Your task to perform on an android device: Is it going to rain today? Image 0: 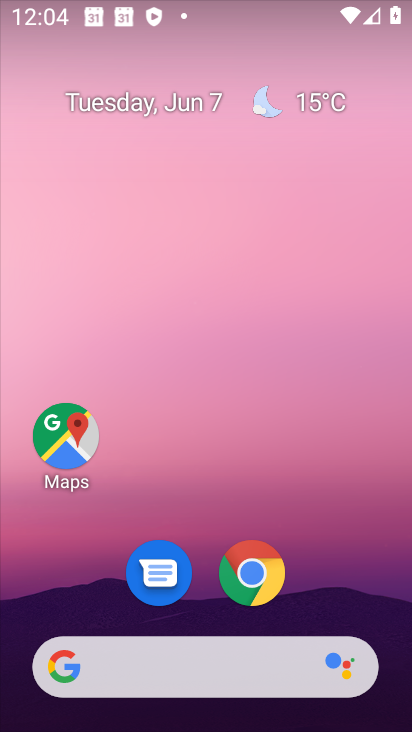
Step 0: press home button
Your task to perform on an android device: Is it going to rain today? Image 1: 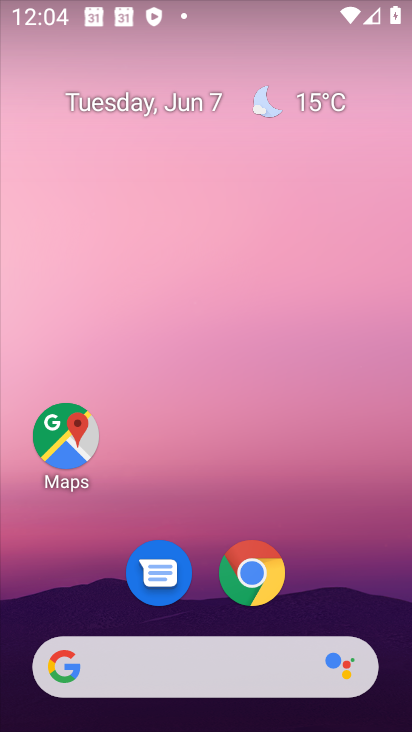
Step 1: click (65, 662)
Your task to perform on an android device: Is it going to rain today? Image 2: 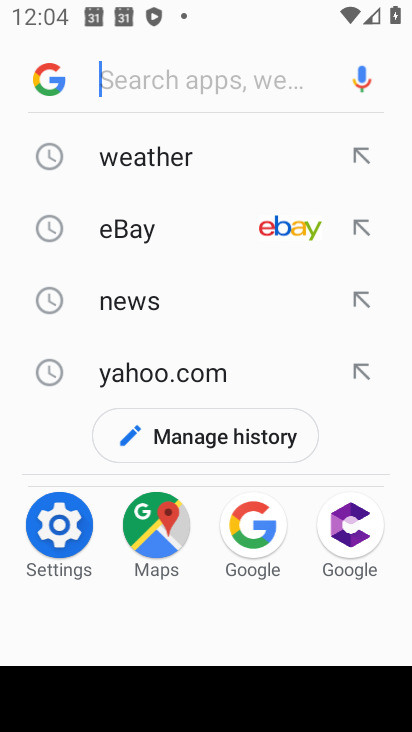
Step 2: type "rain today?"
Your task to perform on an android device: Is it going to rain today? Image 3: 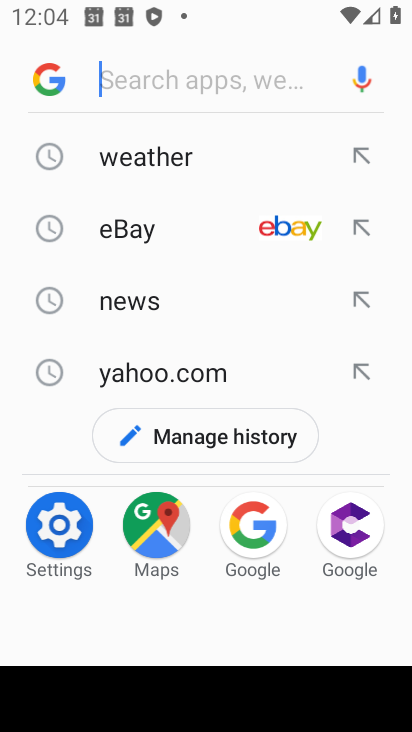
Step 3: click (161, 88)
Your task to perform on an android device: Is it going to rain today? Image 4: 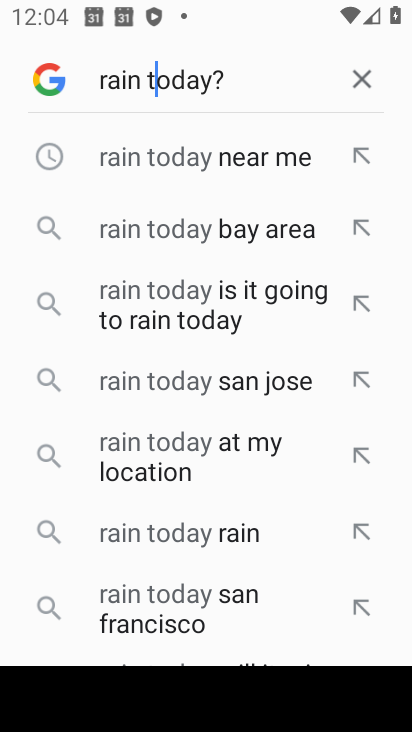
Step 4: click (358, 76)
Your task to perform on an android device: Is it going to rain today? Image 5: 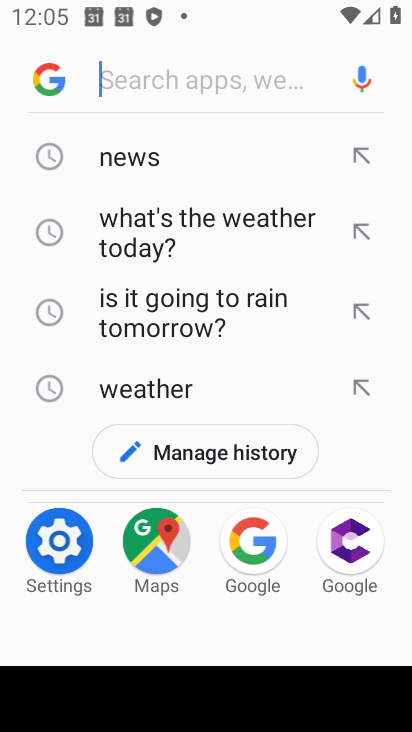
Step 5: type "Is it going to rain today?"
Your task to perform on an android device: Is it going to rain today? Image 6: 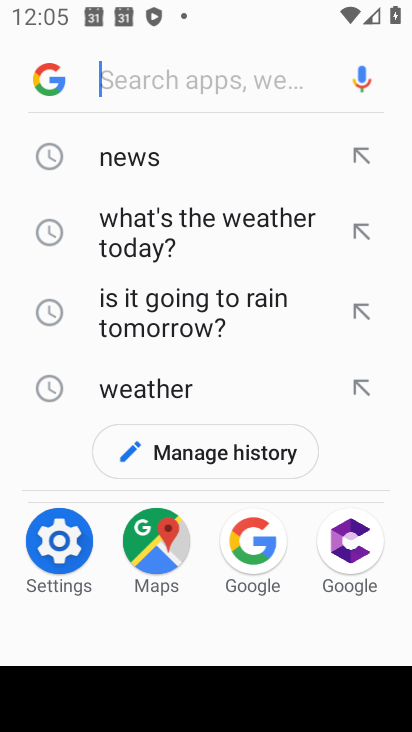
Step 6: click (163, 80)
Your task to perform on an android device: Is it going to rain today? Image 7: 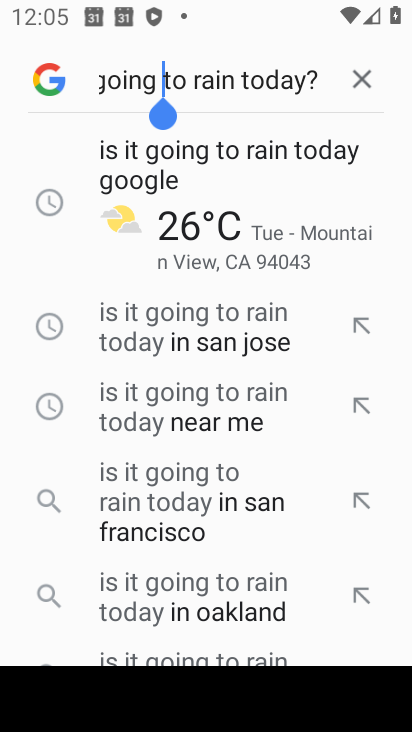
Step 7: click (199, 161)
Your task to perform on an android device: Is it going to rain today? Image 8: 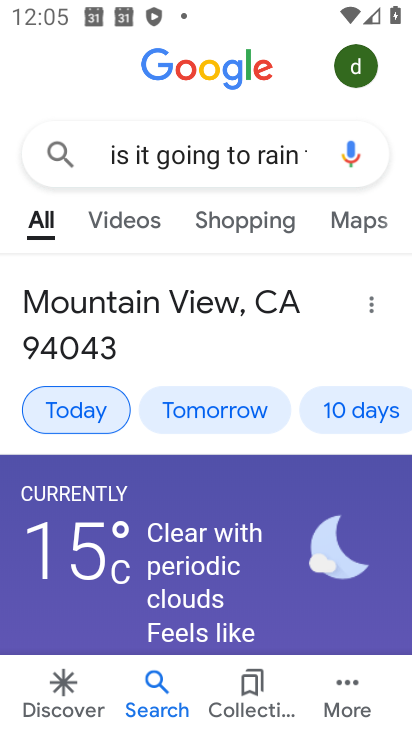
Step 8: task complete